Your task to perform on an android device: find photos in the google photos app Image 0: 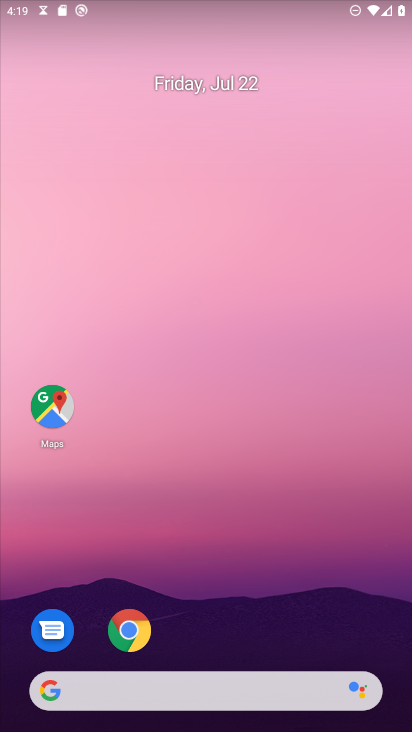
Step 0: drag from (209, 629) to (250, 19)
Your task to perform on an android device: find photos in the google photos app Image 1: 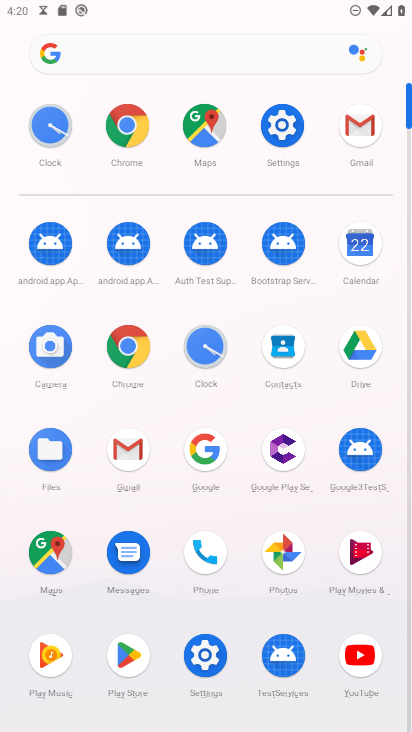
Step 1: click (287, 559)
Your task to perform on an android device: find photos in the google photos app Image 2: 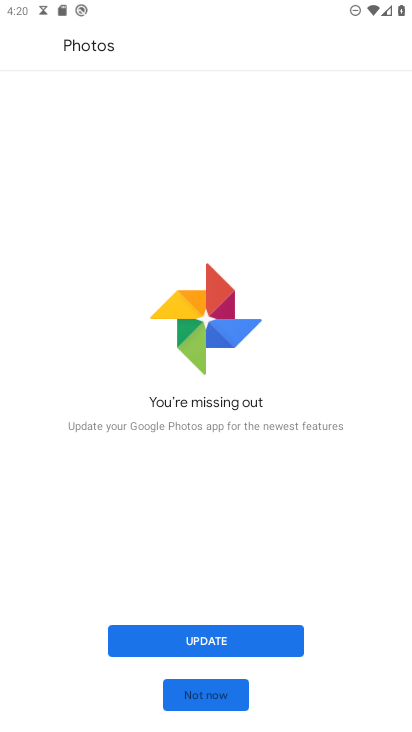
Step 2: click (211, 691)
Your task to perform on an android device: find photos in the google photos app Image 3: 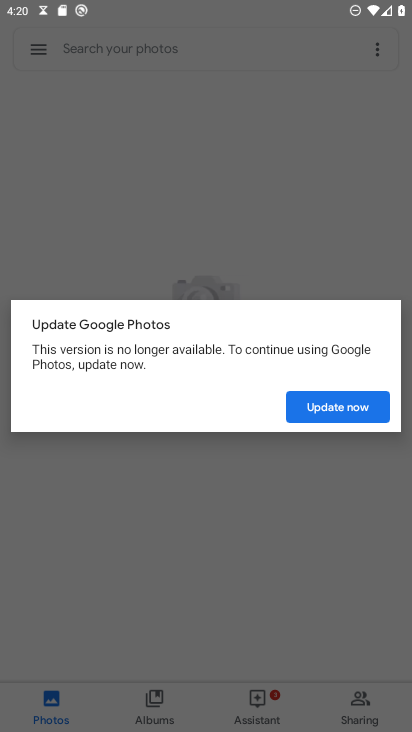
Step 3: click (339, 403)
Your task to perform on an android device: find photos in the google photos app Image 4: 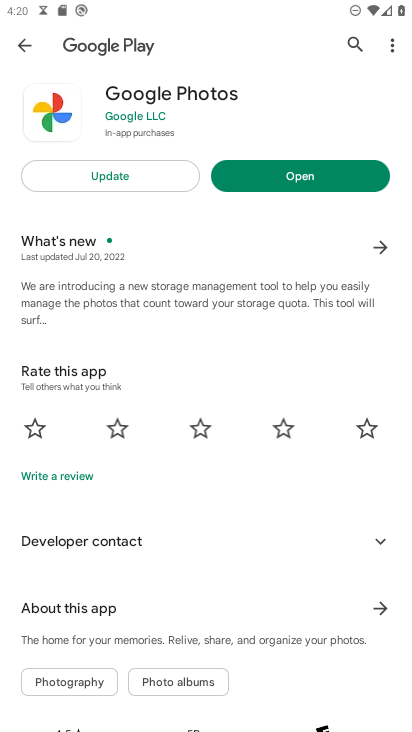
Step 4: click (305, 167)
Your task to perform on an android device: find photos in the google photos app Image 5: 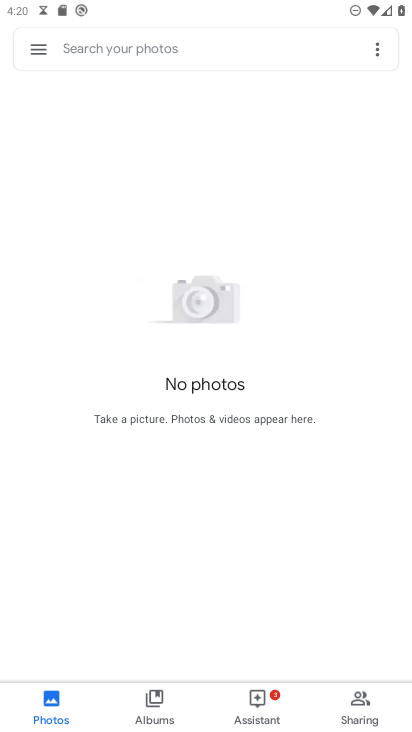
Step 5: task complete